Your task to perform on an android device: clear all cookies in the chrome app Image 0: 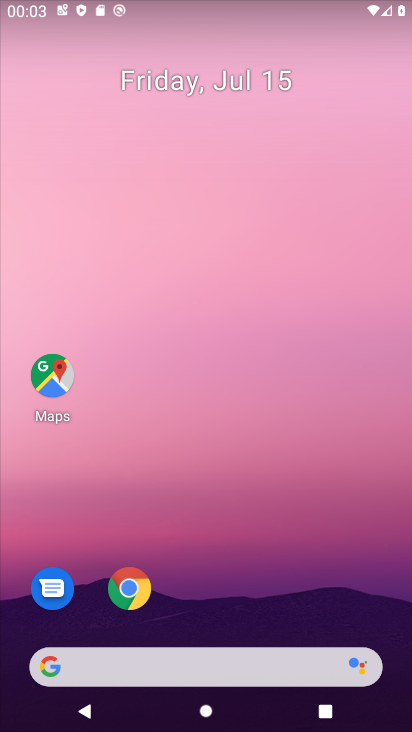
Step 0: click (119, 586)
Your task to perform on an android device: clear all cookies in the chrome app Image 1: 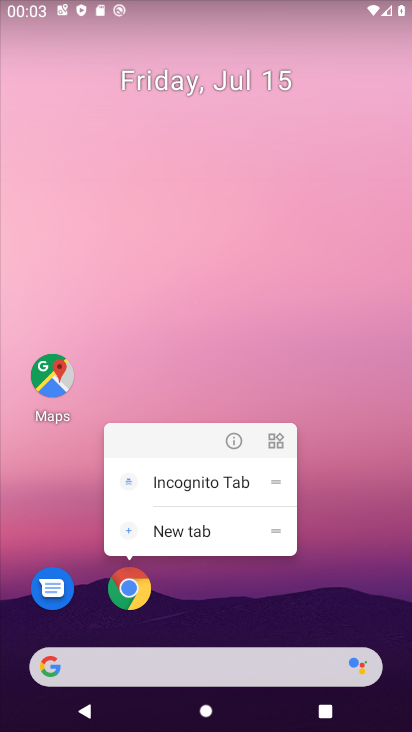
Step 1: click (128, 598)
Your task to perform on an android device: clear all cookies in the chrome app Image 2: 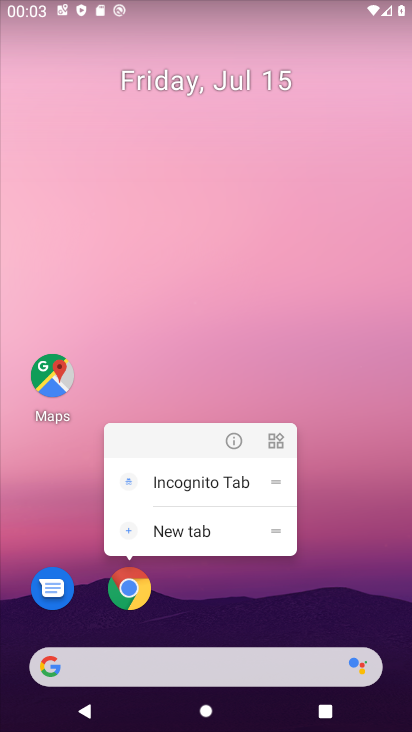
Step 2: click (128, 598)
Your task to perform on an android device: clear all cookies in the chrome app Image 3: 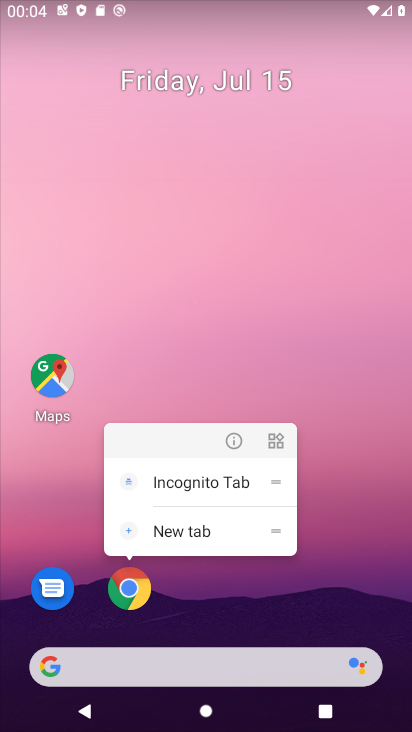
Step 3: click (128, 598)
Your task to perform on an android device: clear all cookies in the chrome app Image 4: 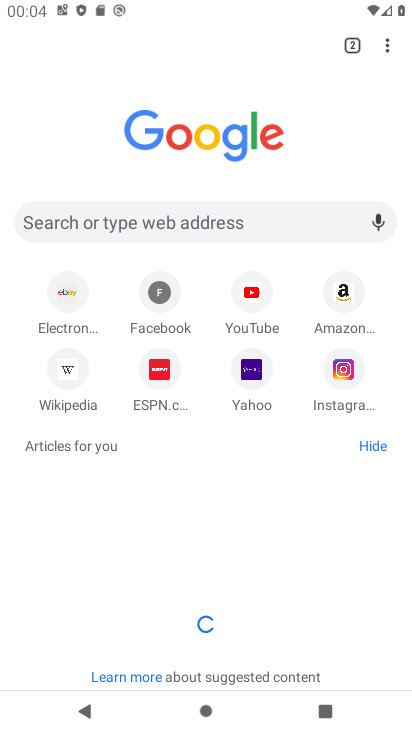
Step 4: drag from (386, 39) to (226, 248)
Your task to perform on an android device: clear all cookies in the chrome app Image 5: 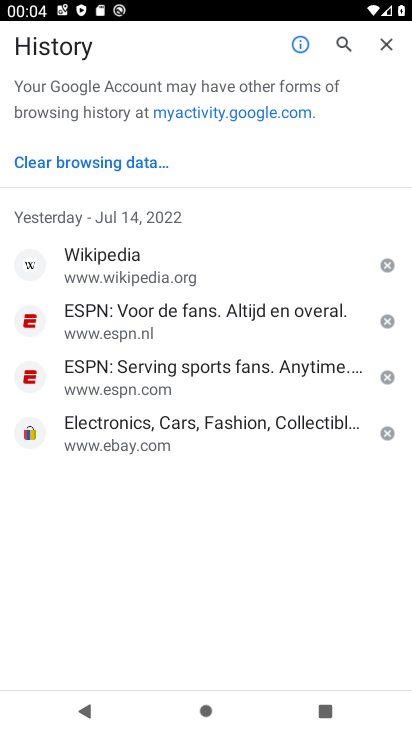
Step 5: click (112, 155)
Your task to perform on an android device: clear all cookies in the chrome app Image 6: 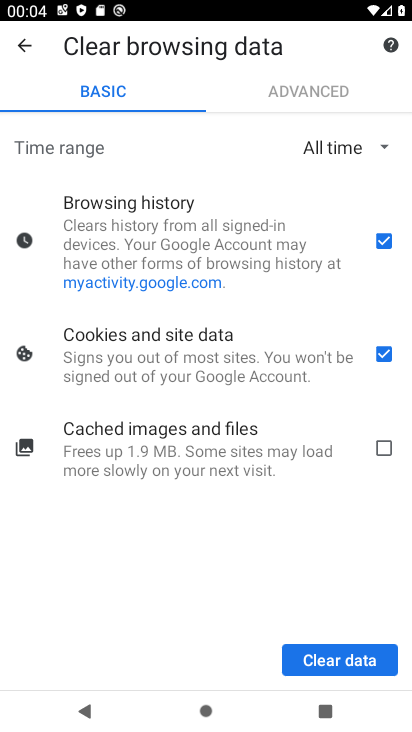
Step 6: click (378, 242)
Your task to perform on an android device: clear all cookies in the chrome app Image 7: 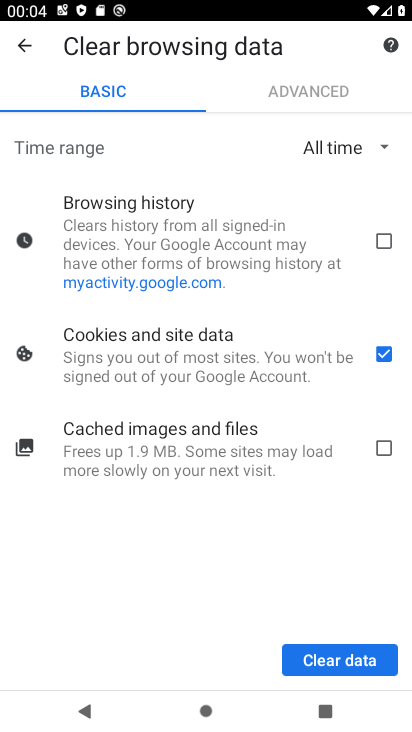
Step 7: click (309, 662)
Your task to perform on an android device: clear all cookies in the chrome app Image 8: 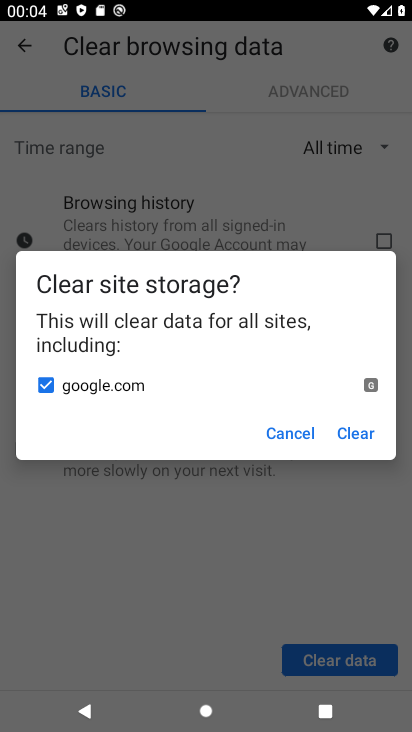
Step 8: click (372, 428)
Your task to perform on an android device: clear all cookies in the chrome app Image 9: 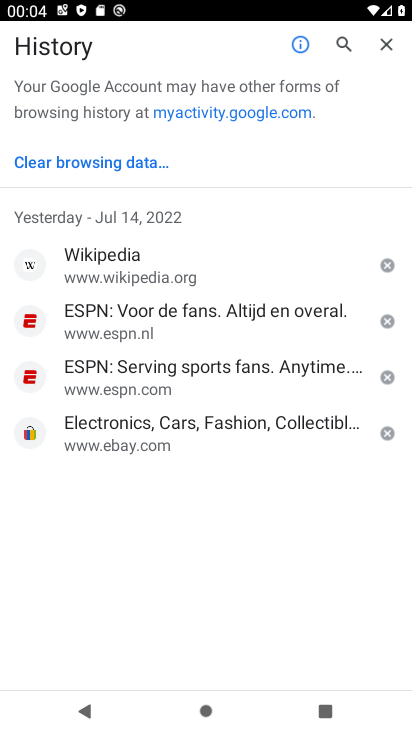
Step 9: task complete